Your task to perform on an android device: turn on the 12-hour format for clock Image 0: 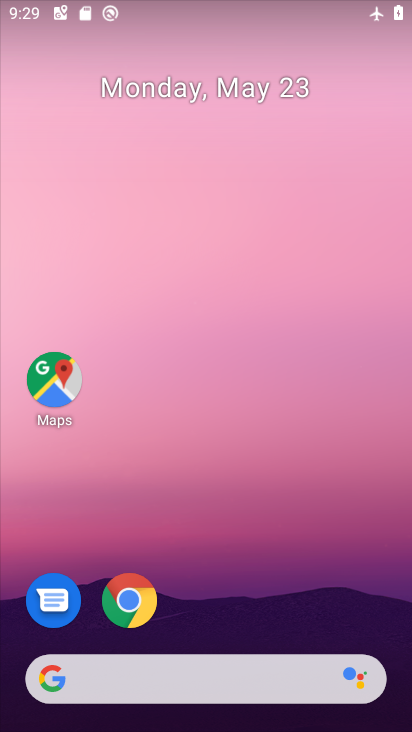
Step 0: drag from (218, 723) to (197, 38)
Your task to perform on an android device: turn on the 12-hour format for clock Image 1: 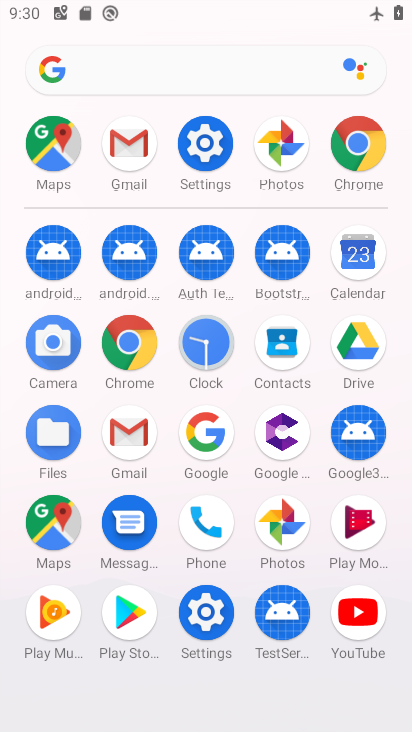
Step 1: click (203, 353)
Your task to perform on an android device: turn on the 12-hour format for clock Image 2: 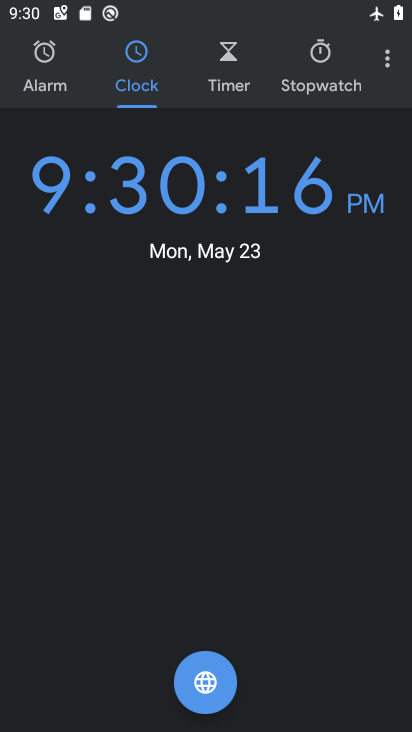
Step 2: click (390, 64)
Your task to perform on an android device: turn on the 12-hour format for clock Image 3: 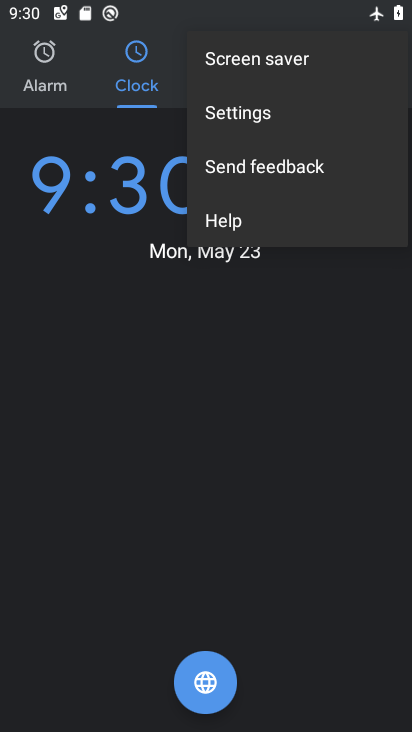
Step 3: click (257, 114)
Your task to perform on an android device: turn on the 12-hour format for clock Image 4: 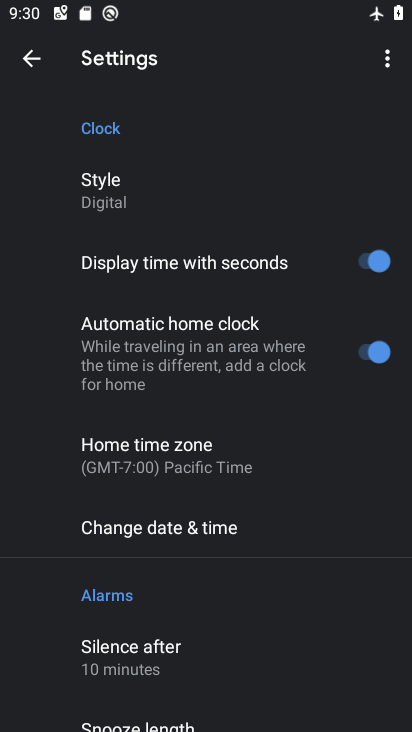
Step 4: click (145, 528)
Your task to perform on an android device: turn on the 12-hour format for clock Image 5: 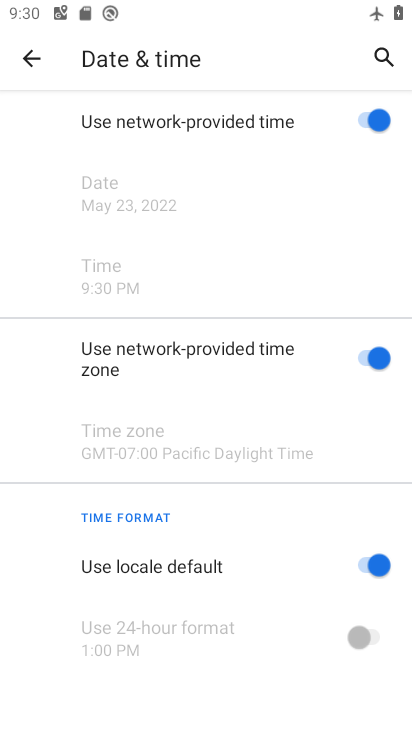
Step 5: task complete